Your task to perform on an android device: find photos in the google photos app Image 0: 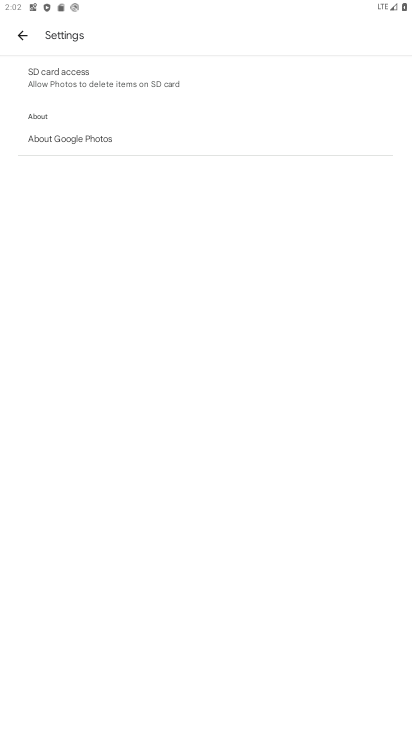
Step 0: press home button
Your task to perform on an android device: find photos in the google photos app Image 1: 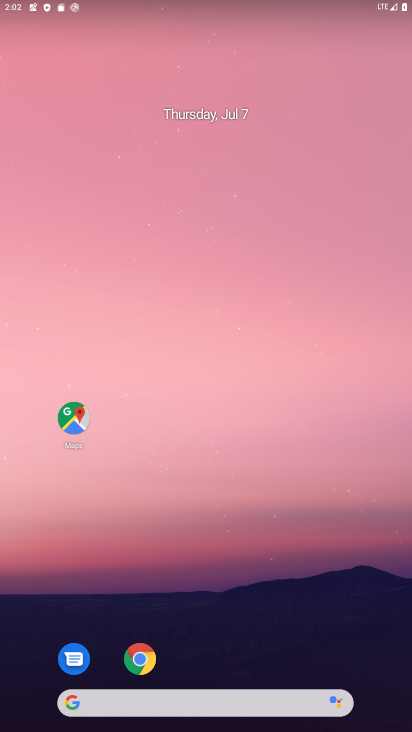
Step 1: drag from (261, 655) to (253, 246)
Your task to perform on an android device: find photos in the google photos app Image 2: 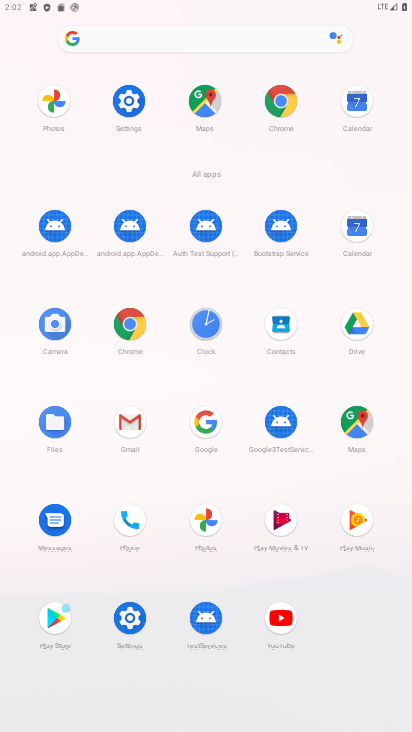
Step 2: click (55, 102)
Your task to perform on an android device: find photos in the google photos app Image 3: 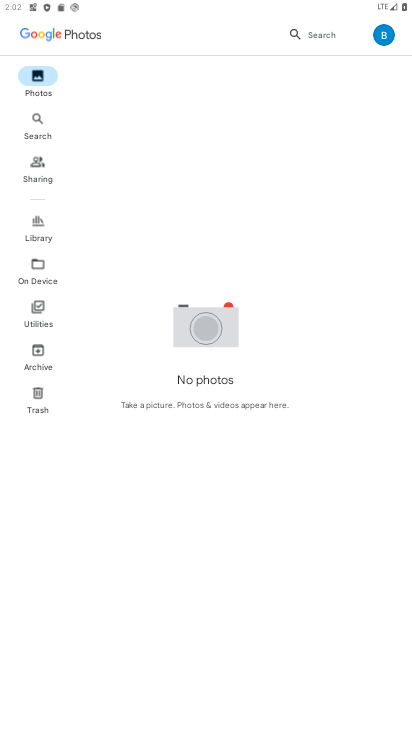
Step 3: click (35, 131)
Your task to perform on an android device: find photos in the google photos app Image 4: 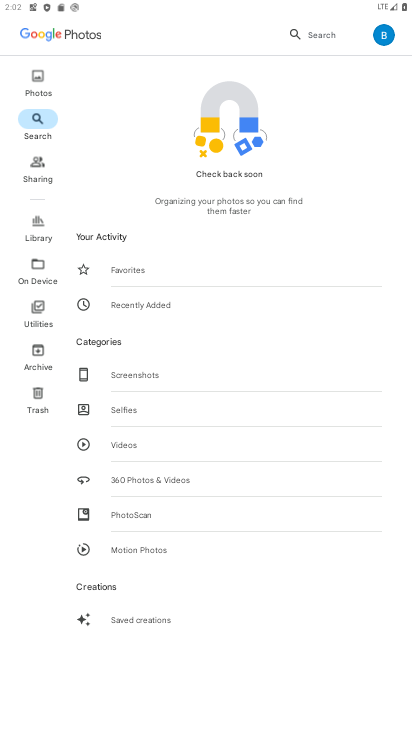
Step 4: click (136, 268)
Your task to perform on an android device: find photos in the google photos app Image 5: 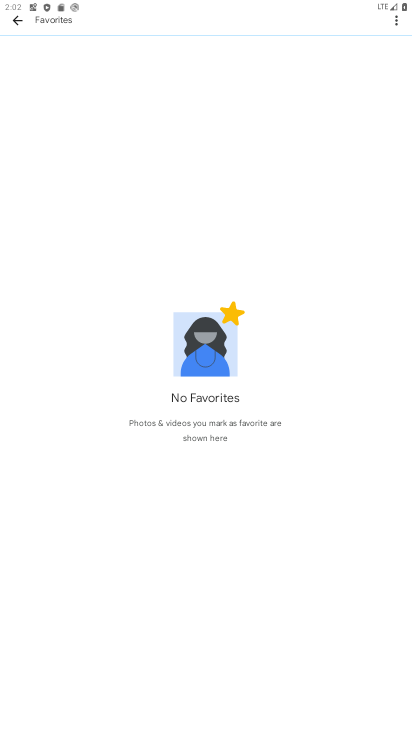
Step 5: click (16, 25)
Your task to perform on an android device: find photos in the google photos app Image 6: 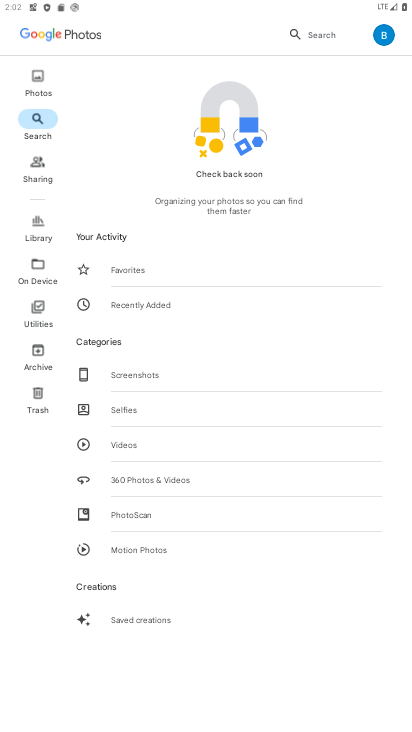
Step 6: click (40, 178)
Your task to perform on an android device: find photos in the google photos app Image 7: 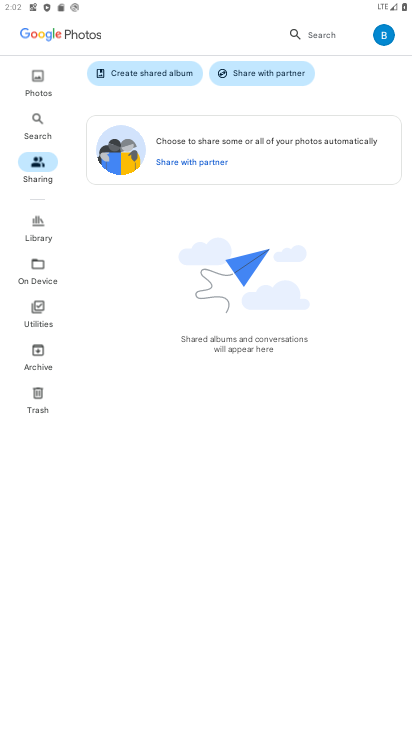
Step 7: click (39, 225)
Your task to perform on an android device: find photos in the google photos app Image 8: 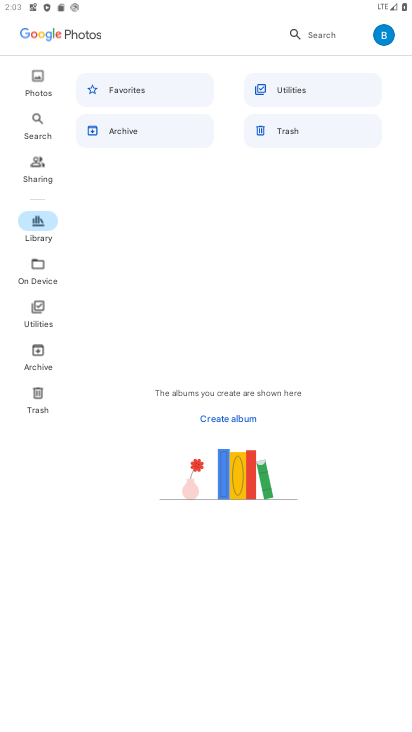
Step 8: click (40, 263)
Your task to perform on an android device: find photos in the google photos app Image 9: 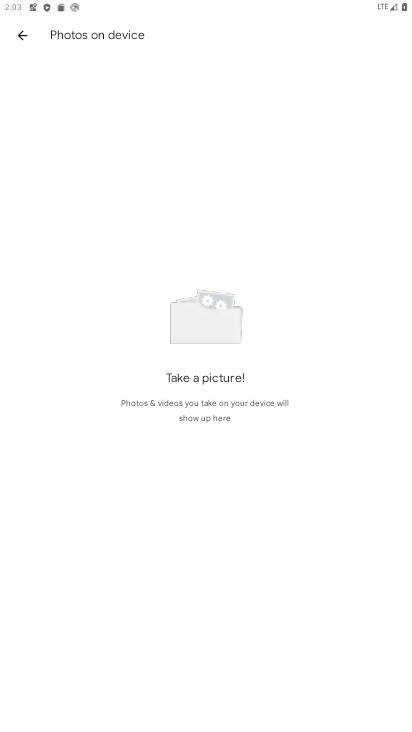
Step 9: click (12, 41)
Your task to perform on an android device: find photos in the google photos app Image 10: 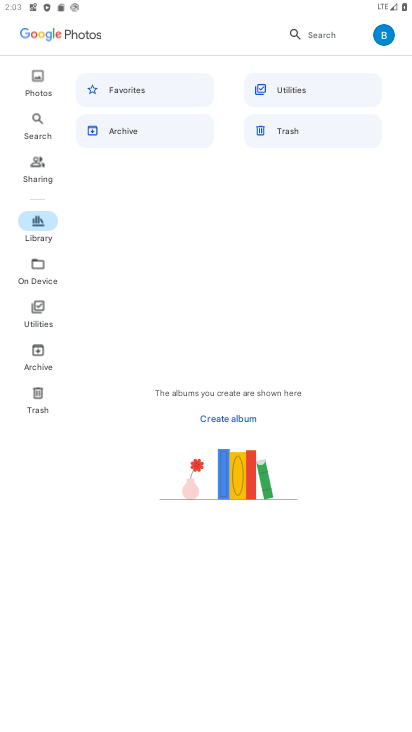
Step 10: click (41, 317)
Your task to perform on an android device: find photos in the google photos app Image 11: 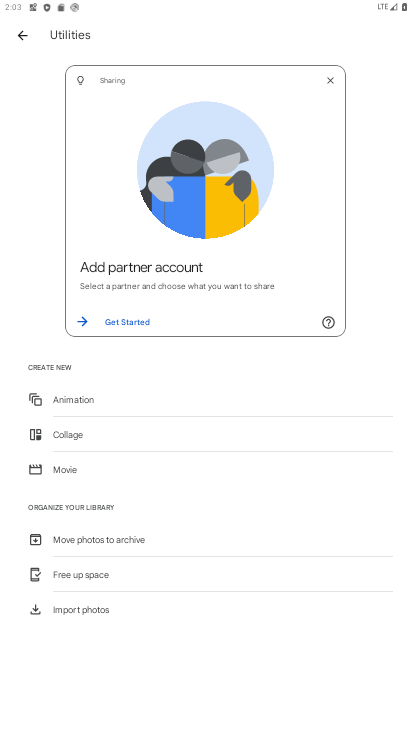
Step 11: task complete